Your task to perform on an android device: Open Chrome and go to settings Image 0: 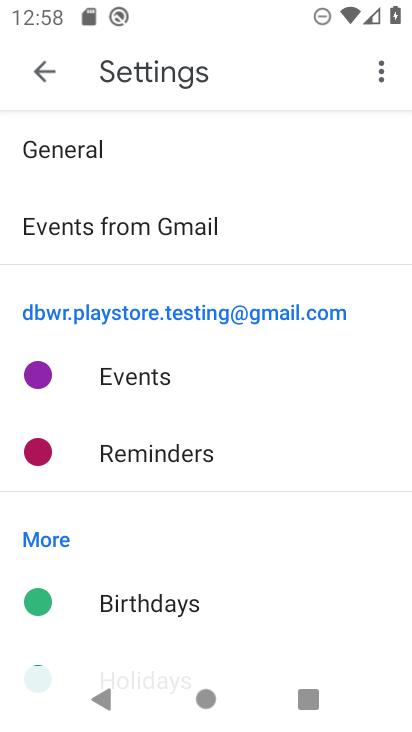
Step 0: press home button
Your task to perform on an android device: Open Chrome and go to settings Image 1: 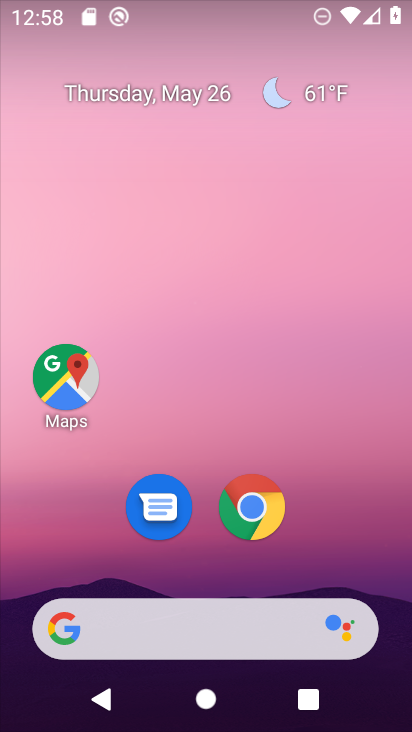
Step 1: drag from (369, 523) to (369, 445)
Your task to perform on an android device: Open Chrome and go to settings Image 2: 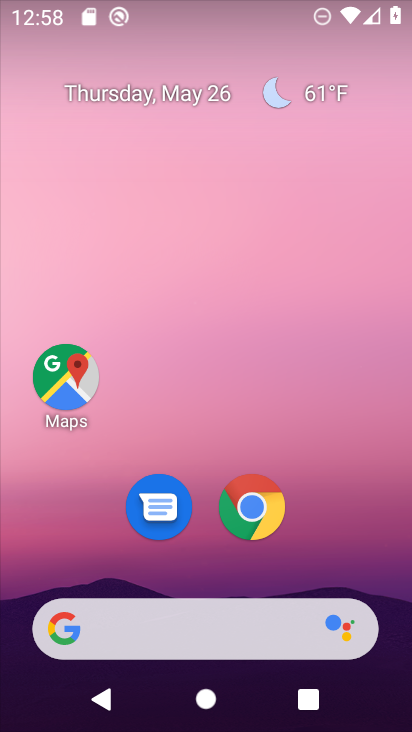
Step 2: click (249, 534)
Your task to perform on an android device: Open Chrome and go to settings Image 3: 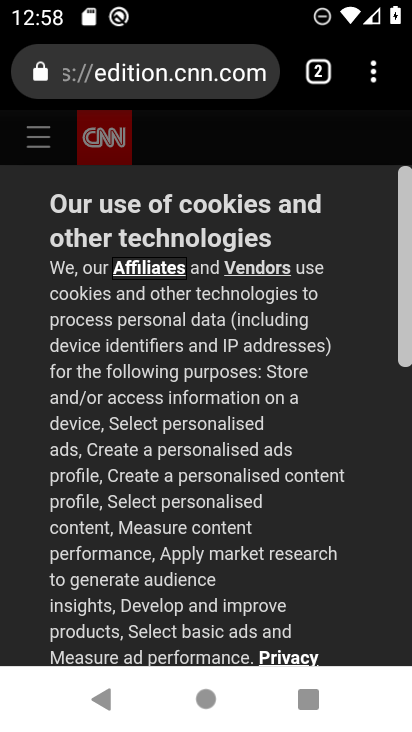
Step 3: click (380, 74)
Your task to perform on an android device: Open Chrome and go to settings Image 4: 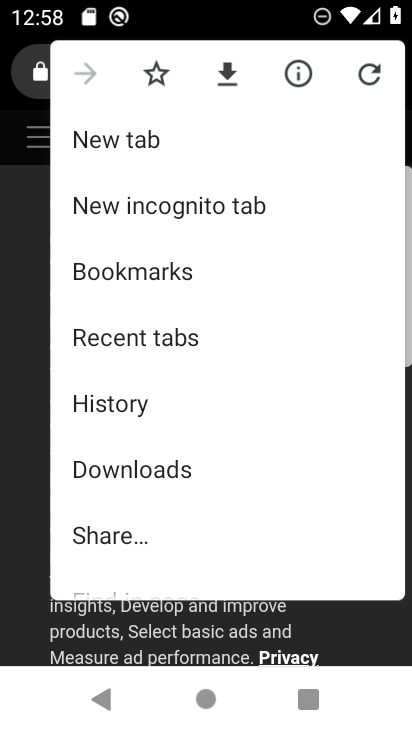
Step 4: drag from (199, 444) to (173, 288)
Your task to perform on an android device: Open Chrome and go to settings Image 5: 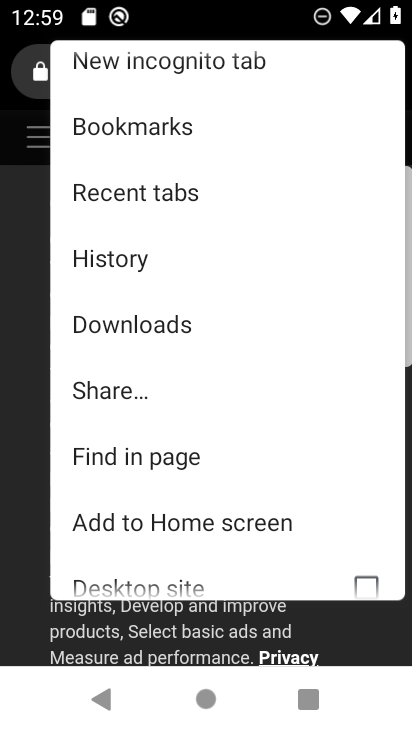
Step 5: drag from (151, 539) to (155, 323)
Your task to perform on an android device: Open Chrome and go to settings Image 6: 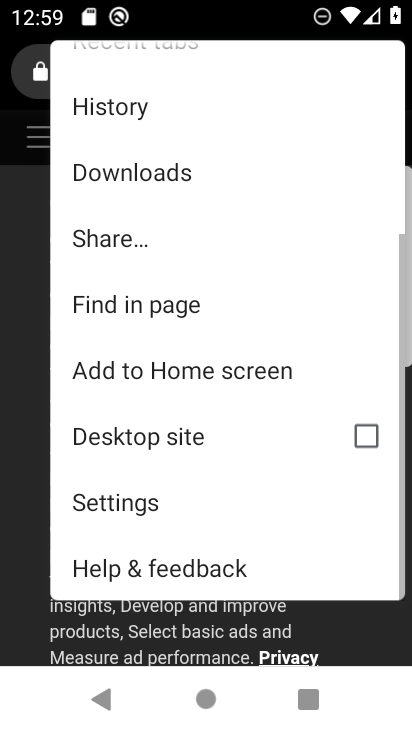
Step 6: click (143, 492)
Your task to perform on an android device: Open Chrome and go to settings Image 7: 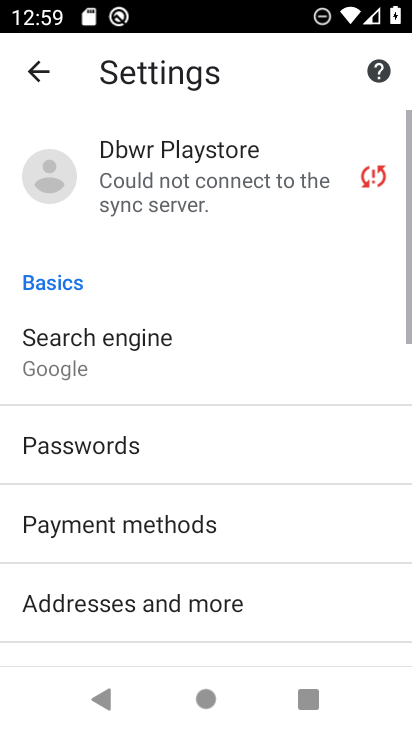
Step 7: task complete